Your task to perform on an android device: open the mobile data screen to see how much data has been used Image 0: 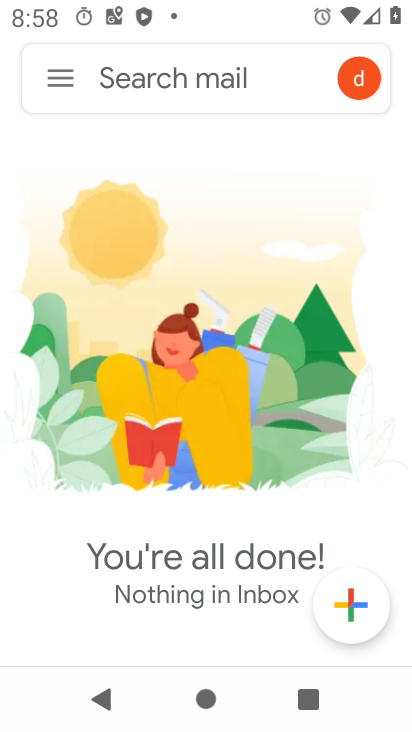
Step 0: press back button
Your task to perform on an android device: open the mobile data screen to see how much data has been used Image 1: 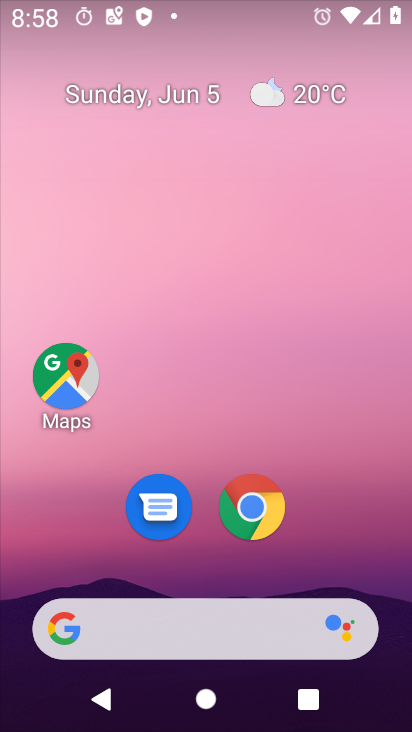
Step 1: drag from (335, 454) to (305, 47)
Your task to perform on an android device: open the mobile data screen to see how much data has been used Image 2: 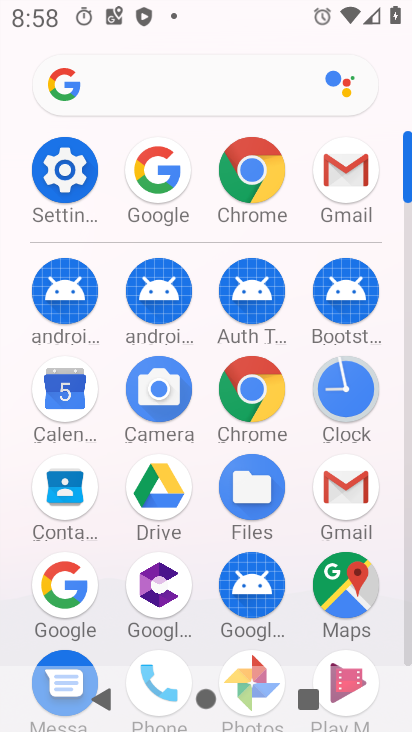
Step 2: click (60, 166)
Your task to perform on an android device: open the mobile data screen to see how much data has been used Image 3: 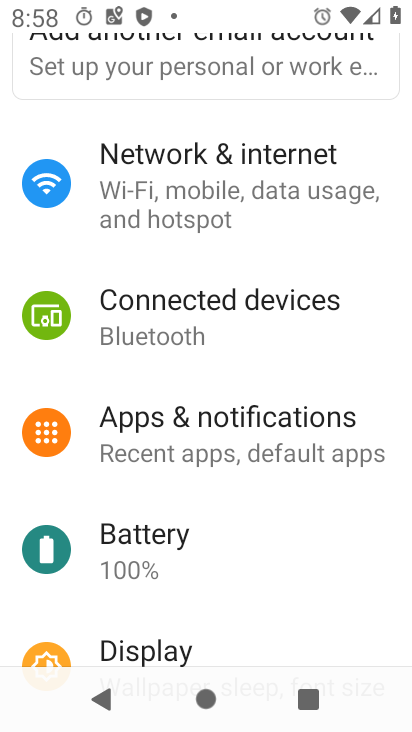
Step 3: click (246, 139)
Your task to perform on an android device: open the mobile data screen to see how much data has been used Image 4: 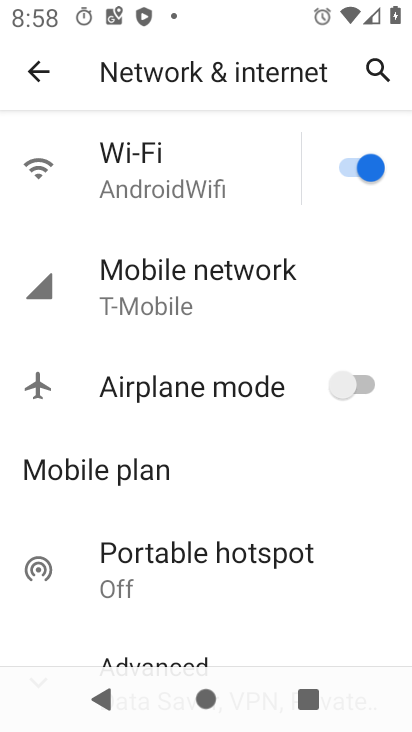
Step 4: click (160, 281)
Your task to perform on an android device: open the mobile data screen to see how much data has been used Image 5: 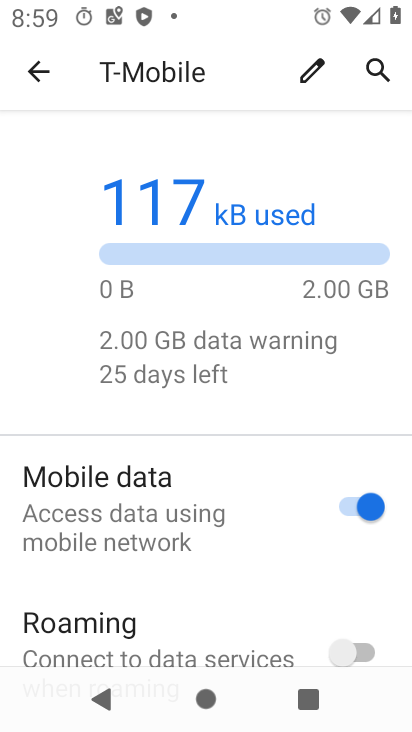
Step 5: task complete